Your task to perform on an android device: make emails show in primary in the gmail app Image 0: 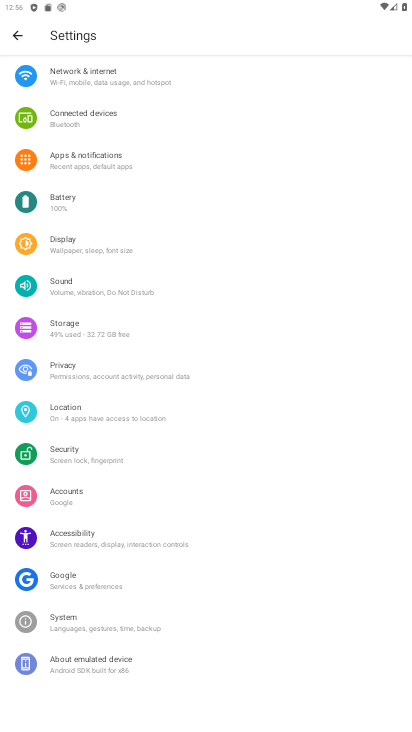
Step 0: press back button
Your task to perform on an android device: make emails show in primary in the gmail app Image 1: 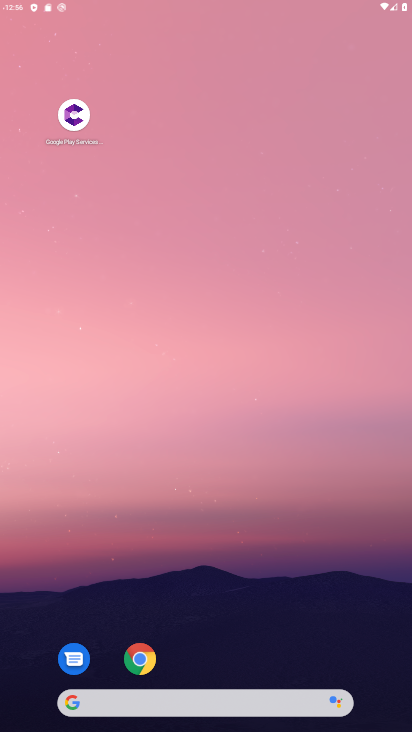
Step 1: press back button
Your task to perform on an android device: make emails show in primary in the gmail app Image 2: 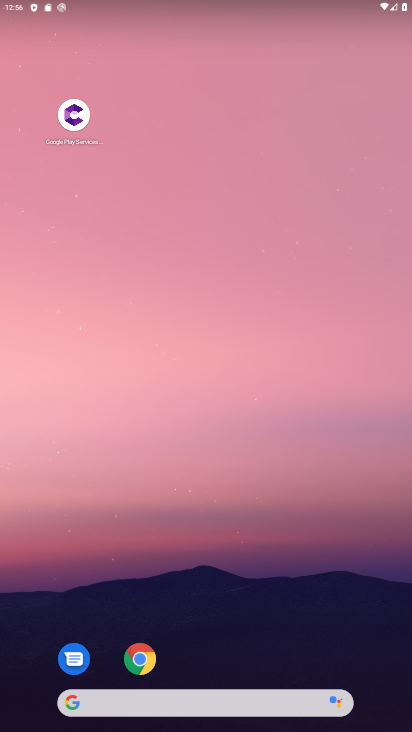
Step 2: click (11, 33)
Your task to perform on an android device: make emails show in primary in the gmail app Image 3: 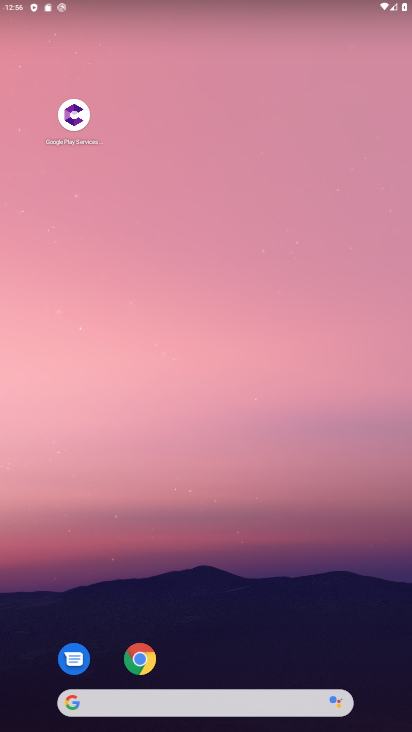
Step 3: click (21, 38)
Your task to perform on an android device: make emails show in primary in the gmail app Image 4: 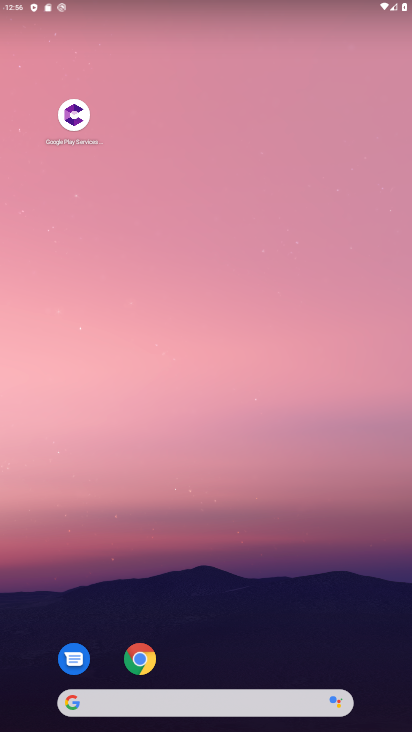
Step 4: click (21, 47)
Your task to perform on an android device: make emails show in primary in the gmail app Image 5: 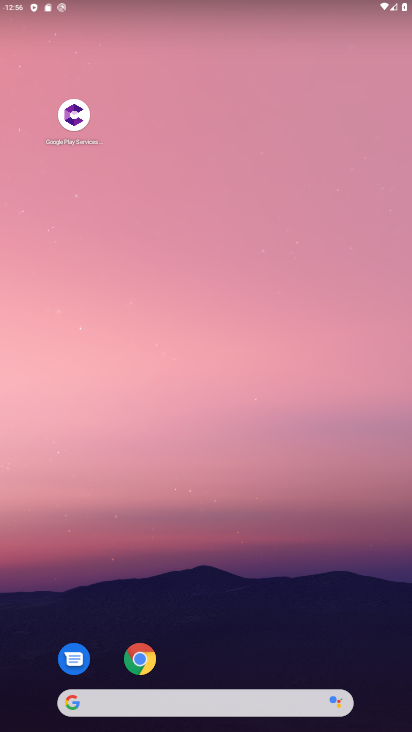
Step 5: click (12, 33)
Your task to perform on an android device: make emails show in primary in the gmail app Image 6: 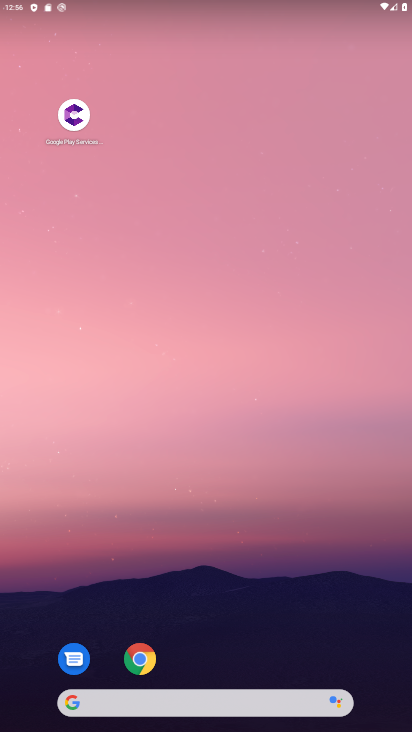
Step 6: press back button
Your task to perform on an android device: make emails show in primary in the gmail app Image 7: 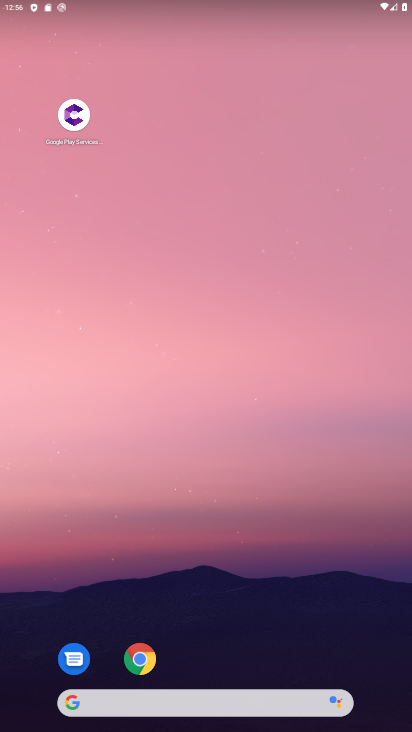
Step 7: press back button
Your task to perform on an android device: make emails show in primary in the gmail app Image 8: 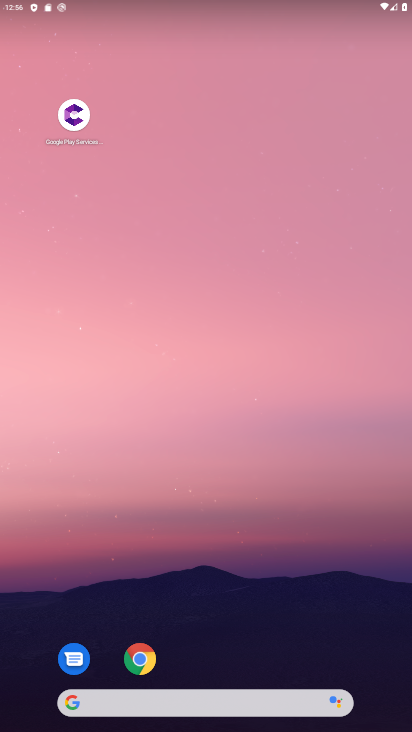
Step 8: click (214, 164)
Your task to perform on an android device: make emails show in primary in the gmail app Image 9: 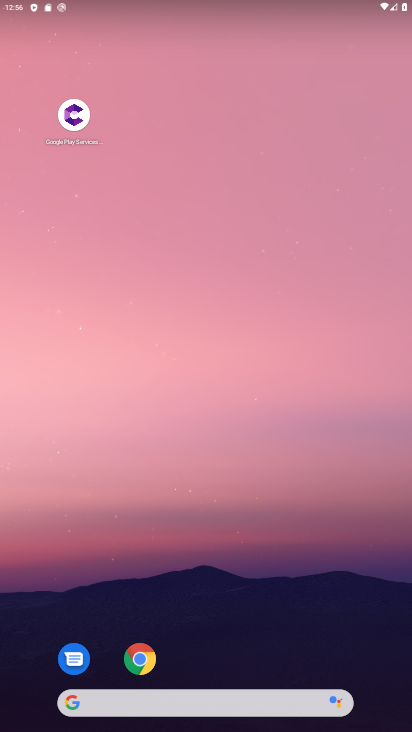
Step 9: task complete